Your task to perform on an android device: change the clock display to digital Image 0: 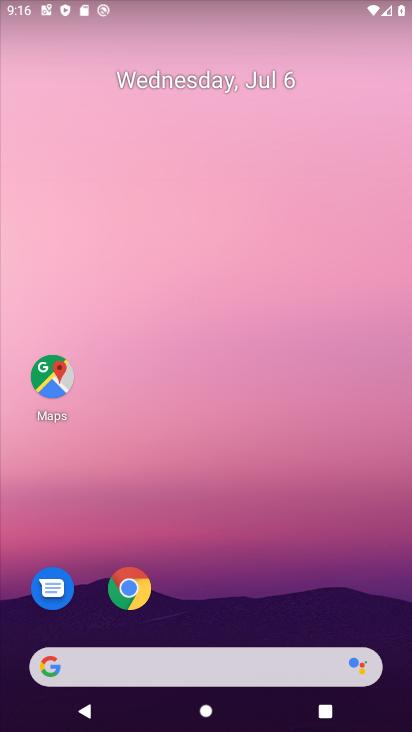
Step 0: drag from (161, 656) to (349, 50)
Your task to perform on an android device: change the clock display to digital Image 1: 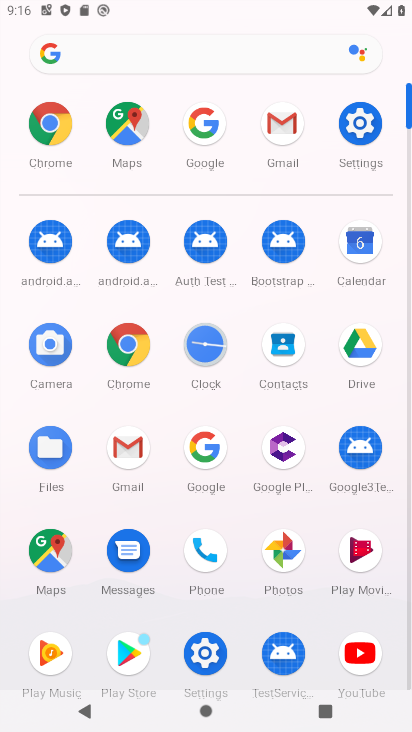
Step 1: click (198, 337)
Your task to perform on an android device: change the clock display to digital Image 2: 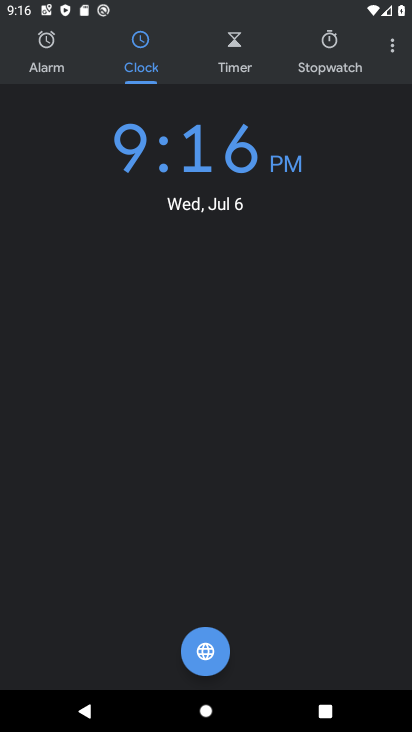
Step 2: click (386, 48)
Your task to perform on an android device: change the clock display to digital Image 3: 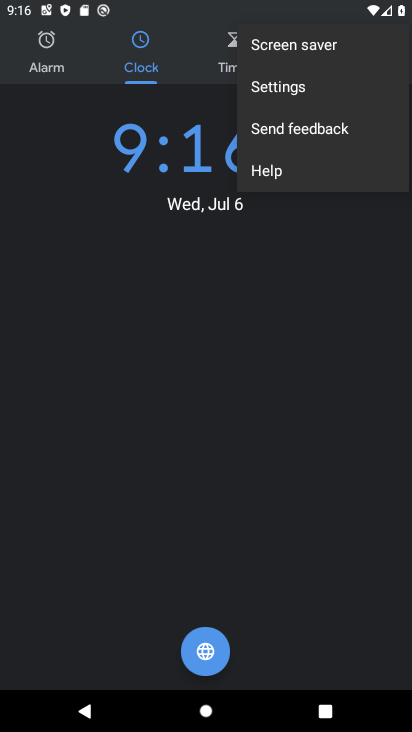
Step 3: click (298, 90)
Your task to perform on an android device: change the clock display to digital Image 4: 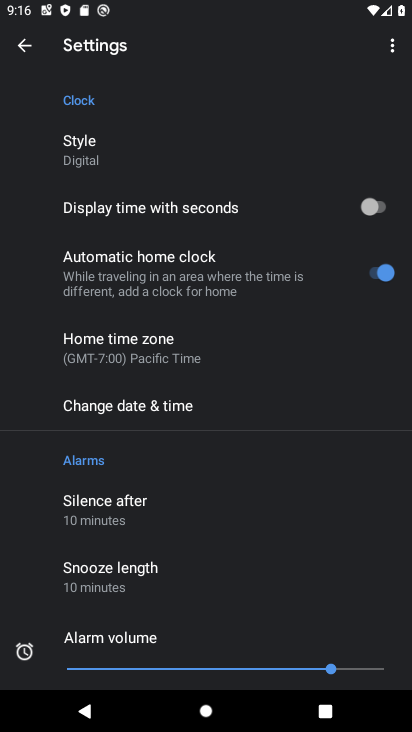
Step 4: task complete